Your task to perform on an android device: What's the weather going to be this weekend? Image 0: 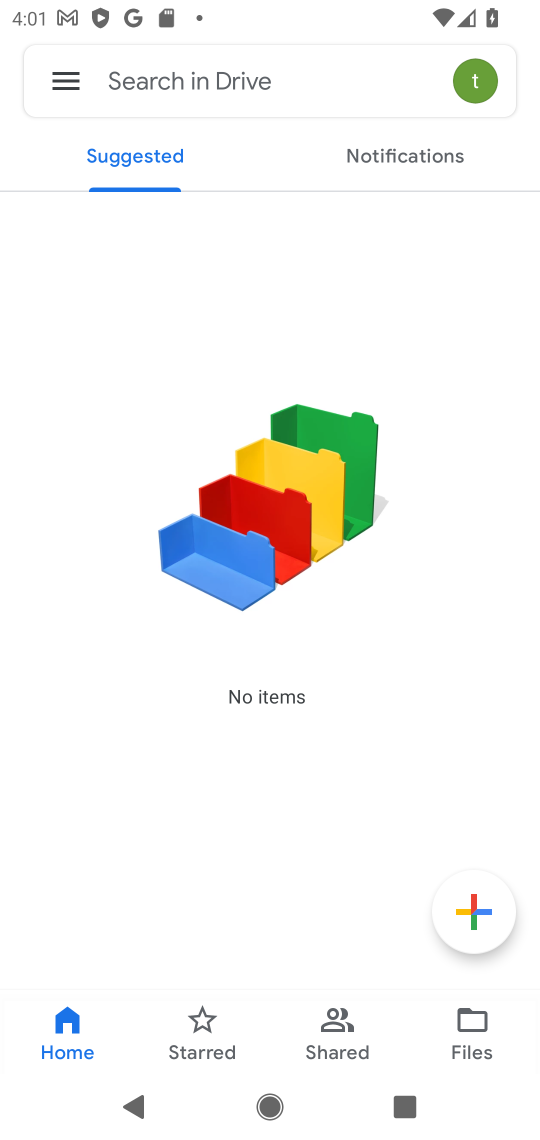
Step 0: press home button
Your task to perform on an android device: What's the weather going to be this weekend? Image 1: 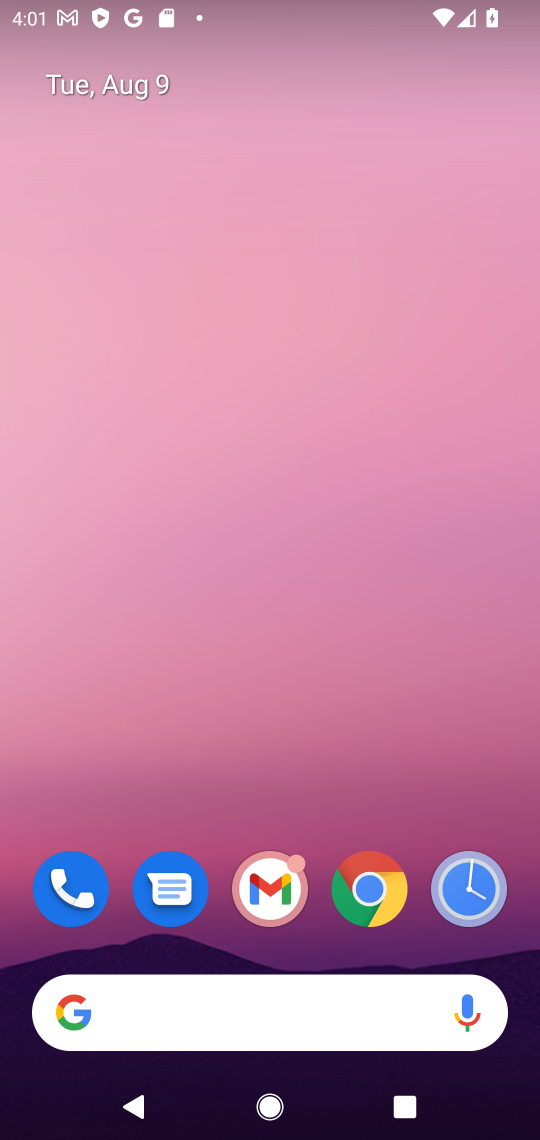
Step 1: drag from (258, 771) to (267, 0)
Your task to perform on an android device: What's the weather going to be this weekend? Image 2: 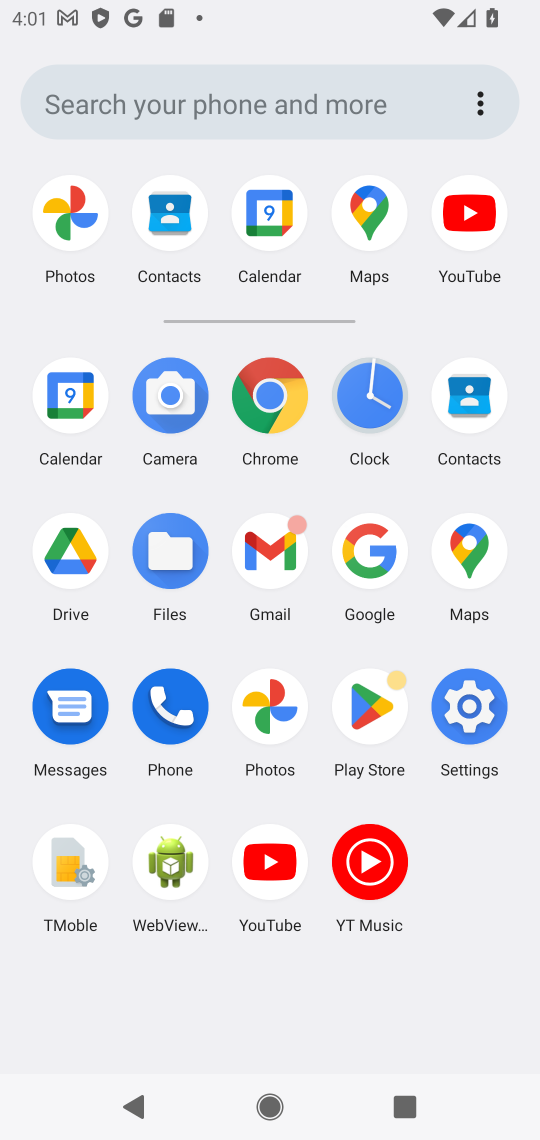
Step 2: press back button
Your task to perform on an android device: What's the weather going to be this weekend? Image 3: 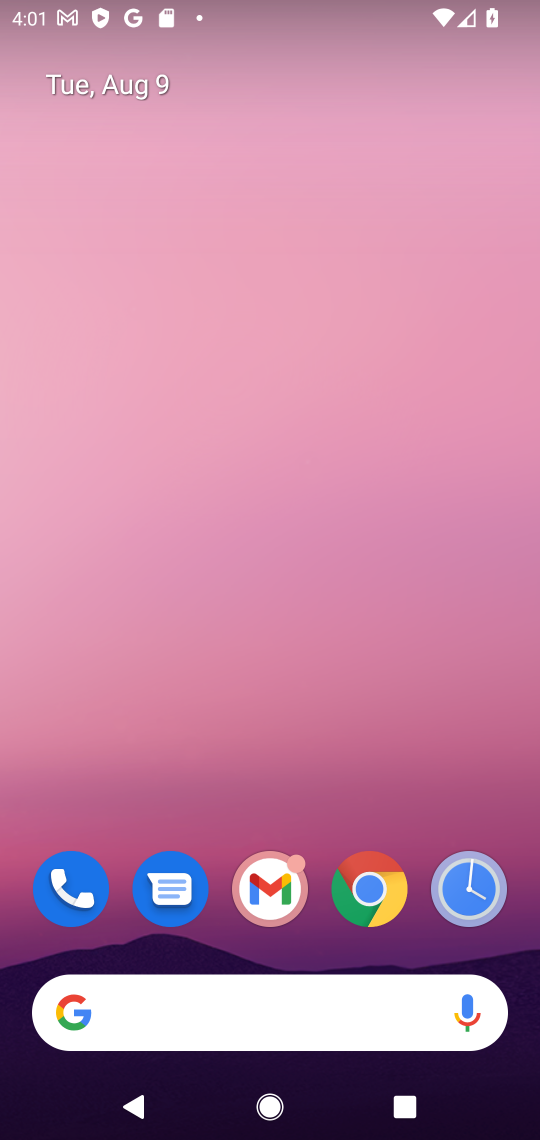
Step 3: click (322, 1009)
Your task to perform on an android device: What's the weather going to be this weekend? Image 4: 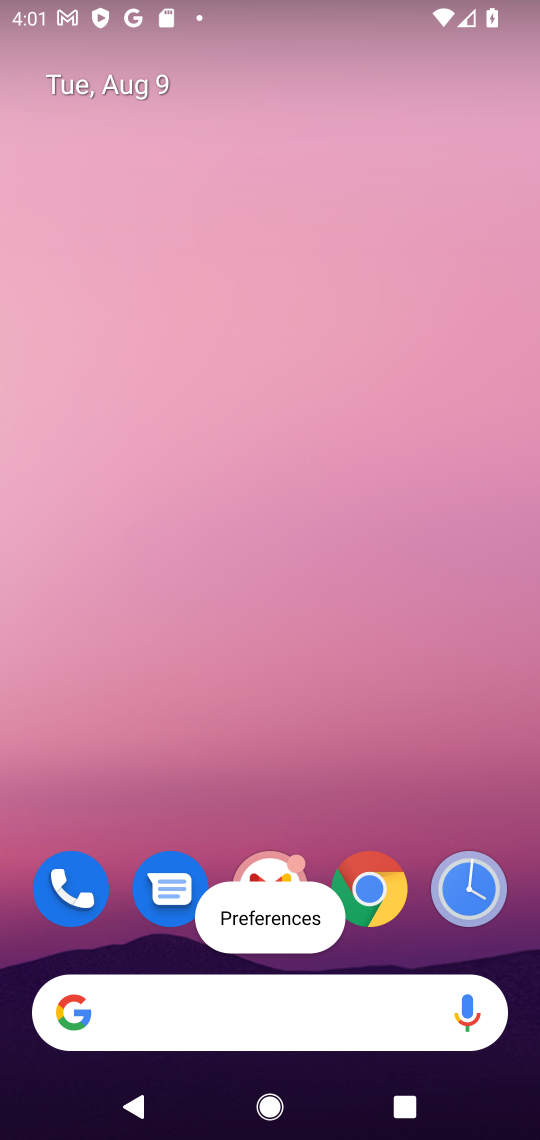
Step 4: click (322, 1011)
Your task to perform on an android device: What's the weather going to be this weekend? Image 5: 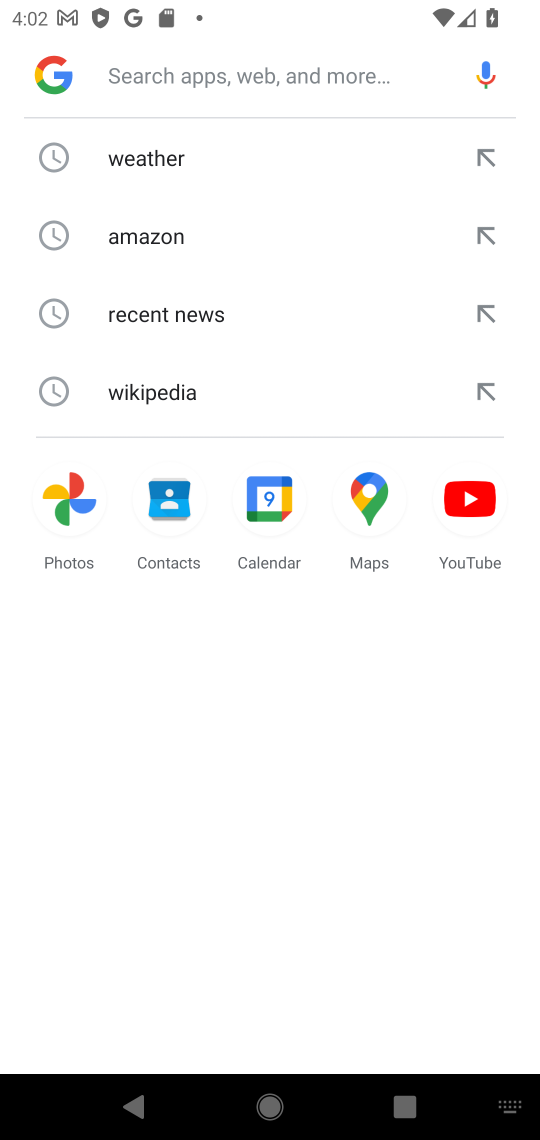
Step 5: click (157, 157)
Your task to perform on an android device: What's the weather going to be this weekend? Image 6: 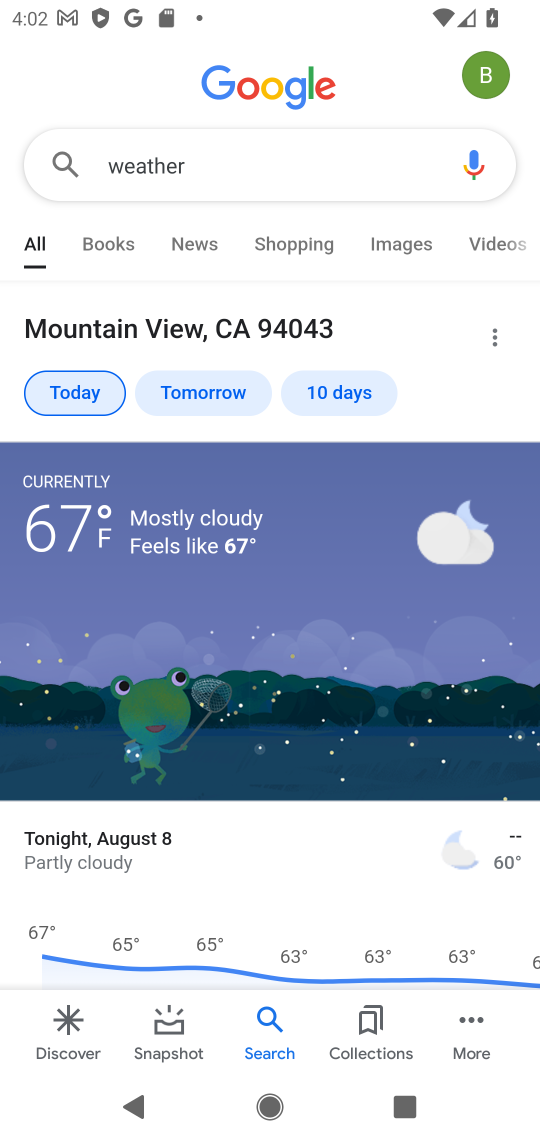
Step 6: click (345, 382)
Your task to perform on an android device: What's the weather going to be this weekend? Image 7: 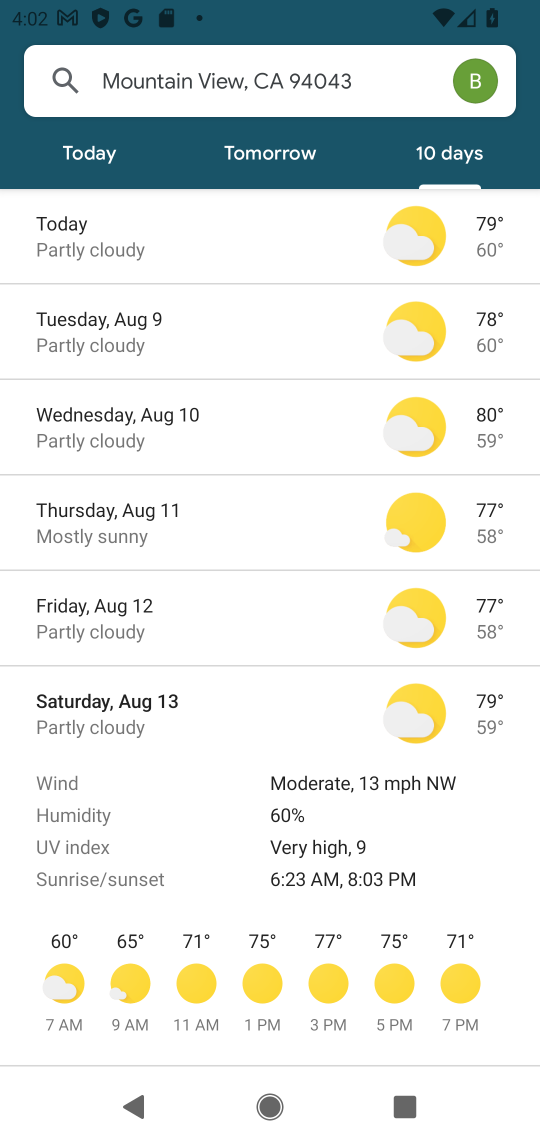
Step 7: task complete